Your task to perform on an android device: Search for Italian restaurants on Maps Image 0: 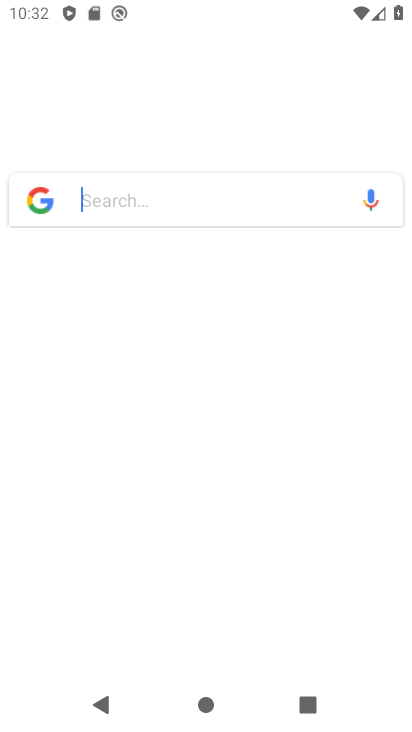
Step 0: click (123, 572)
Your task to perform on an android device: Search for Italian restaurants on Maps Image 1: 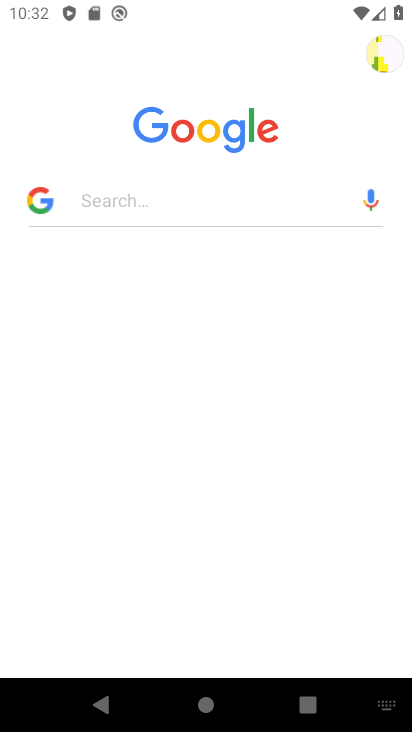
Step 1: click (104, 206)
Your task to perform on an android device: Search for Italian restaurants on Maps Image 2: 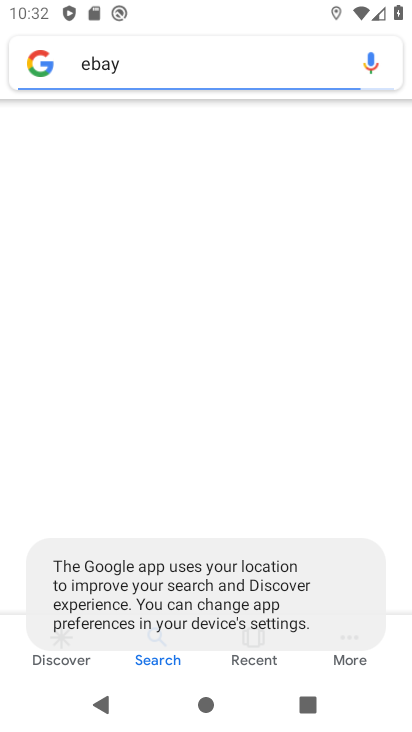
Step 2: press back button
Your task to perform on an android device: Search for Italian restaurants on Maps Image 3: 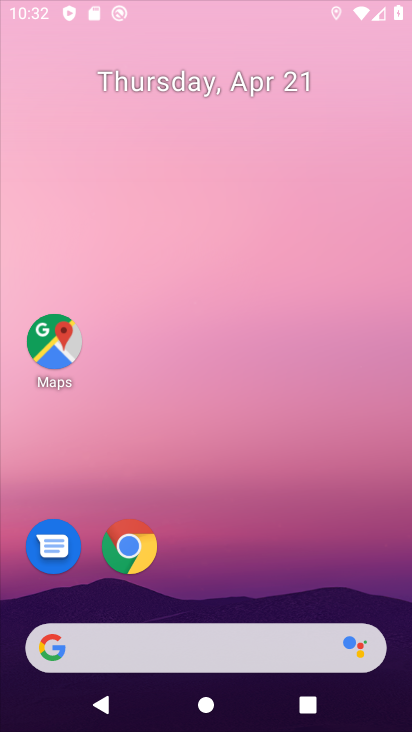
Step 3: press home button
Your task to perform on an android device: Search for Italian restaurants on Maps Image 4: 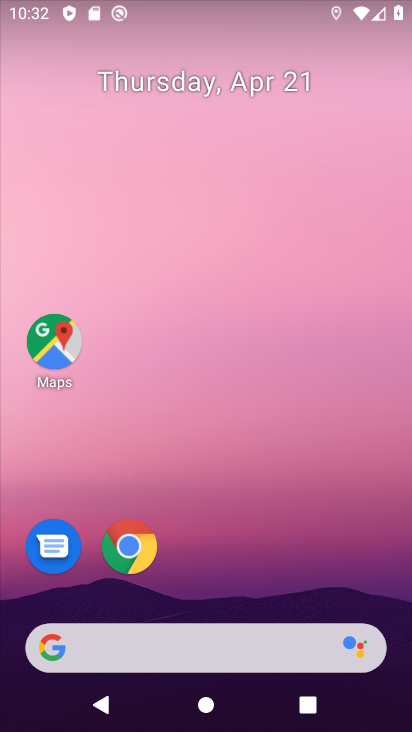
Step 4: click (295, 589)
Your task to perform on an android device: Search for Italian restaurants on Maps Image 5: 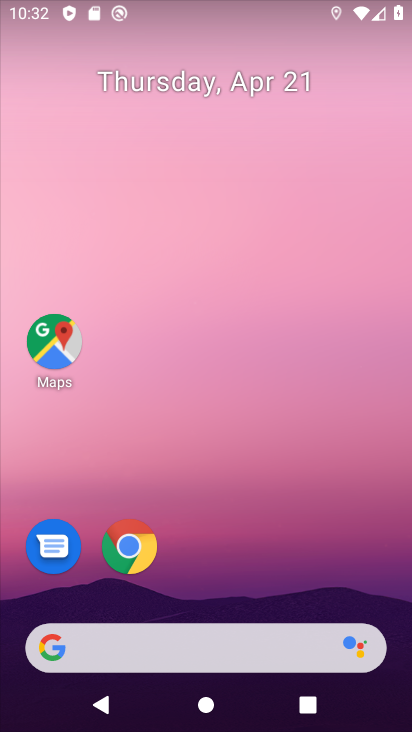
Step 5: click (56, 359)
Your task to perform on an android device: Search for Italian restaurants on Maps Image 6: 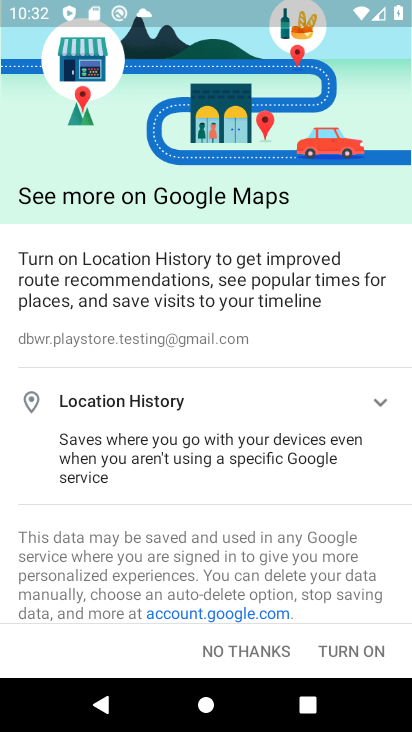
Step 6: click (266, 649)
Your task to perform on an android device: Search for Italian restaurants on Maps Image 7: 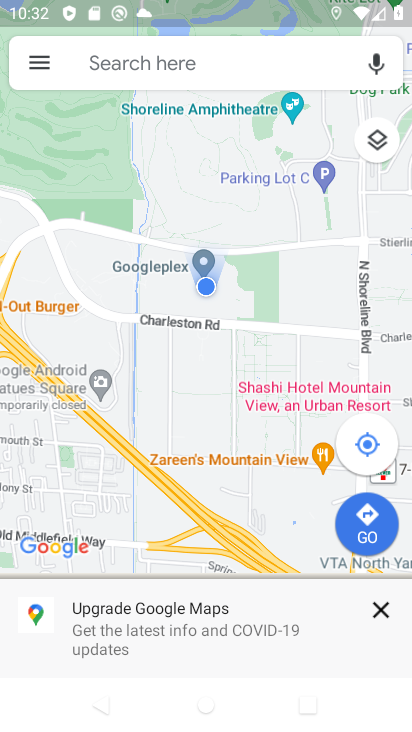
Step 7: click (172, 64)
Your task to perform on an android device: Search for Italian restaurants on Maps Image 8: 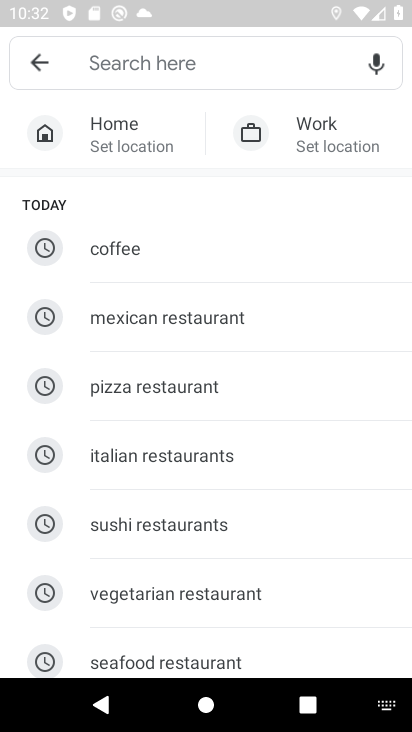
Step 8: click (166, 448)
Your task to perform on an android device: Search for Italian restaurants on Maps Image 9: 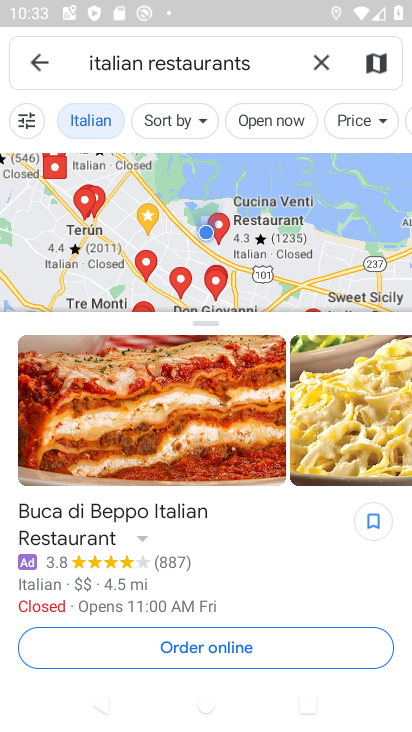
Step 9: task complete